Your task to perform on an android device: Go to battery settings Image 0: 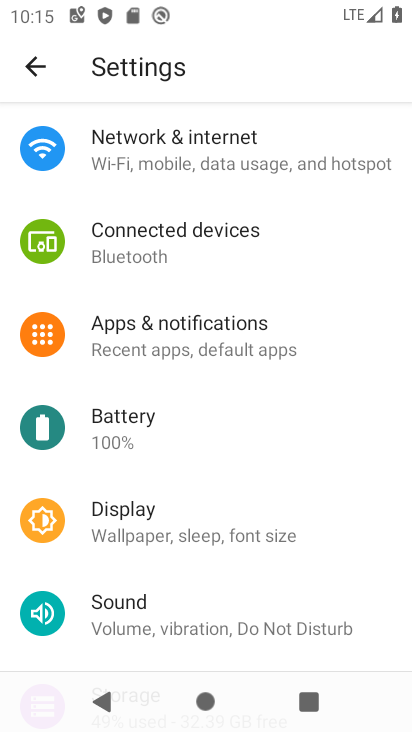
Step 0: click (204, 429)
Your task to perform on an android device: Go to battery settings Image 1: 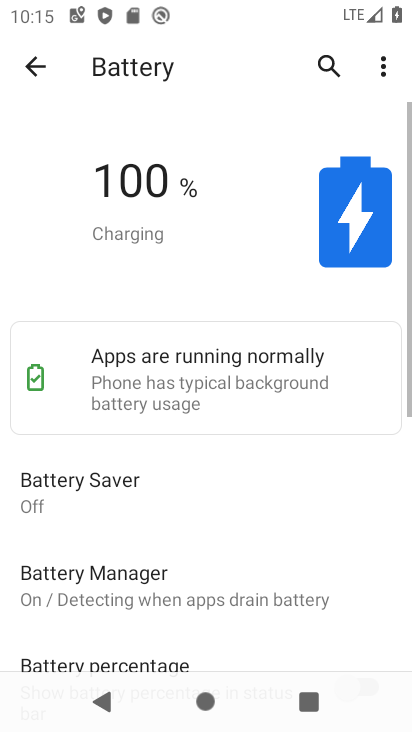
Step 1: task complete